Your task to perform on an android device: find which apps use the phone's location Image 0: 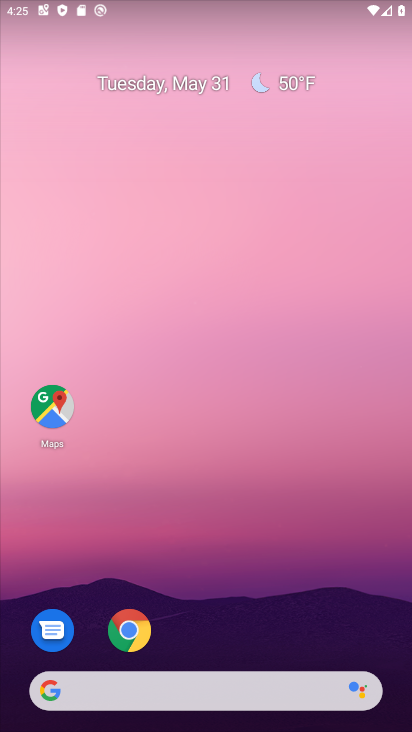
Step 0: drag from (135, 655) to (234, 189)
Your task to perform on an android device: find which apps use the phone's location Image 1: 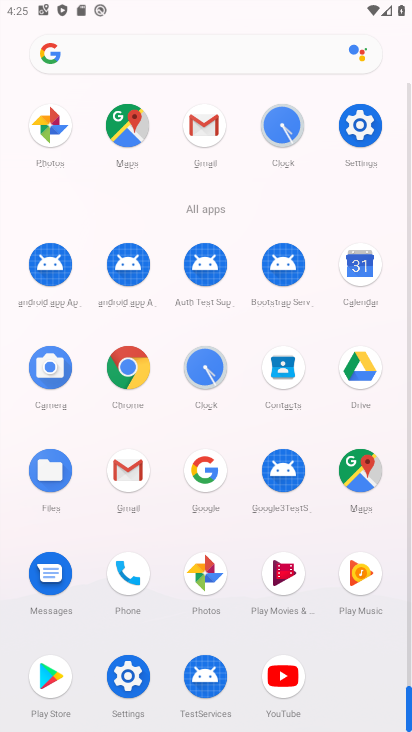
Step 1: drag from (177, 555) to (236, 337)
Your task to perform on an android device: find which apps use the phone's location Image 2: 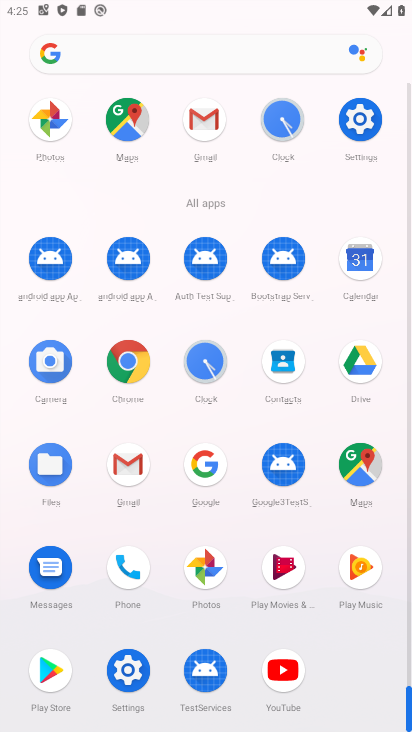
Step 2: click (126, 678)
Your task to perform on an android device: find which apps use the phone's location Image 3: 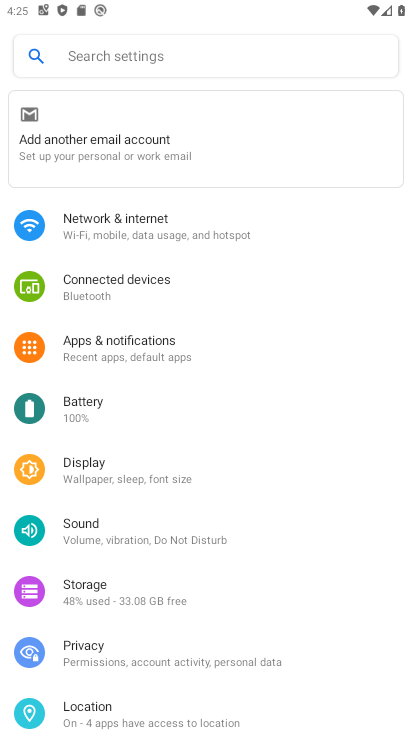
Step 3: click (126, 711)
Your task to perform on an android device: find which apps use the phone's location Image 4: 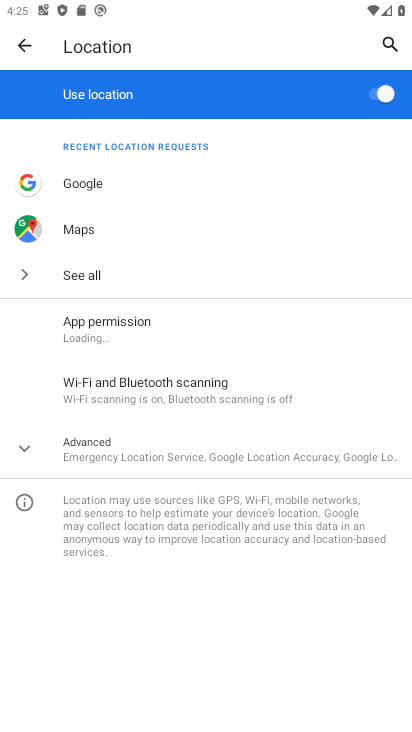
Step 4: click (131, 331)
Your task to perform on an android device: find which apps use the phone's location Image 5: 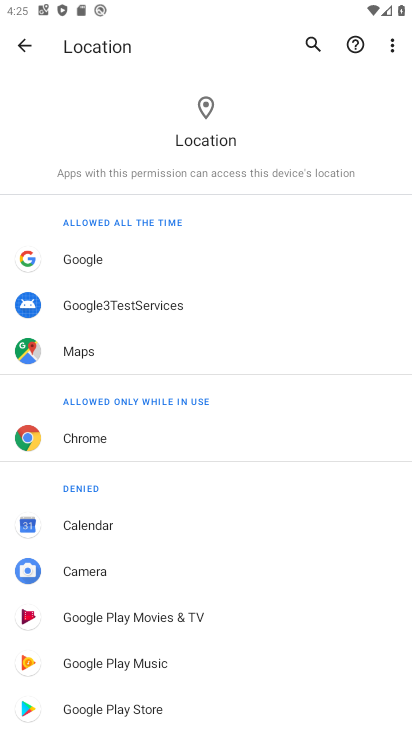
Step 5: task complete